Your task to perform on an android device: toggle data saver in the chrome app Image 0: 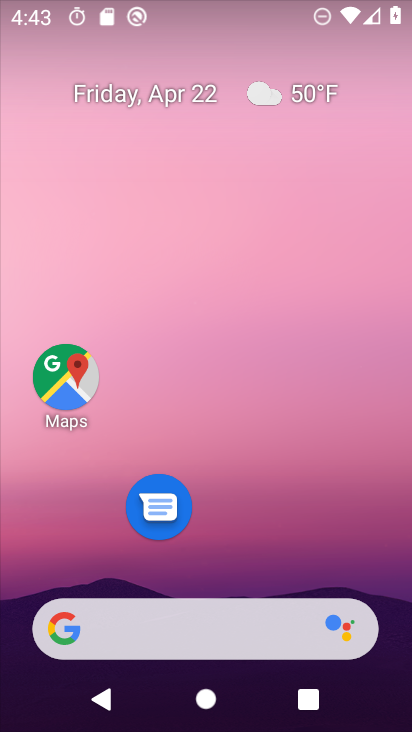
Step 0: drag from (222, 442) to (314, 34)
Your task to perform on an android device: toggle data saver in the chrome app Image 1: 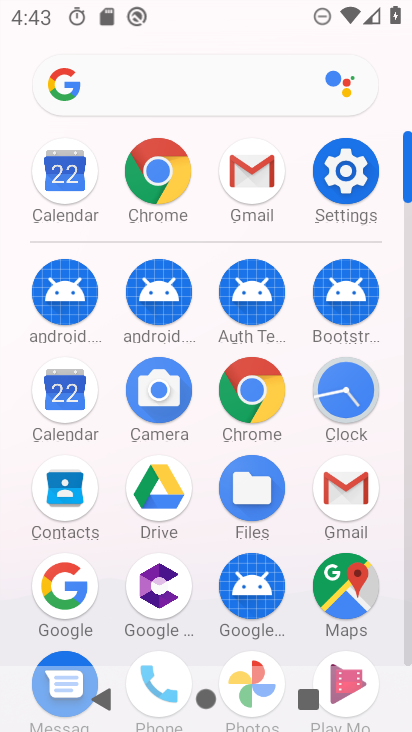
Step 1: click (158, 178)
Your task to perform on an android device: toggle data saver in the chrome app Image 2: 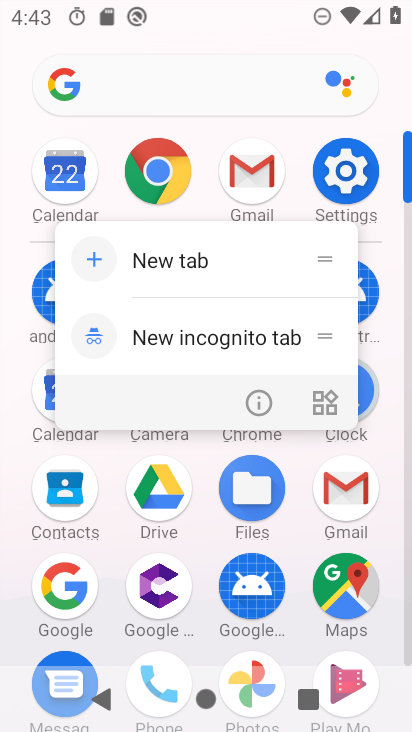
Step 2: click (158, 173)
Your task to perform on an android device: toggle data saver in the chrome app Image 3: 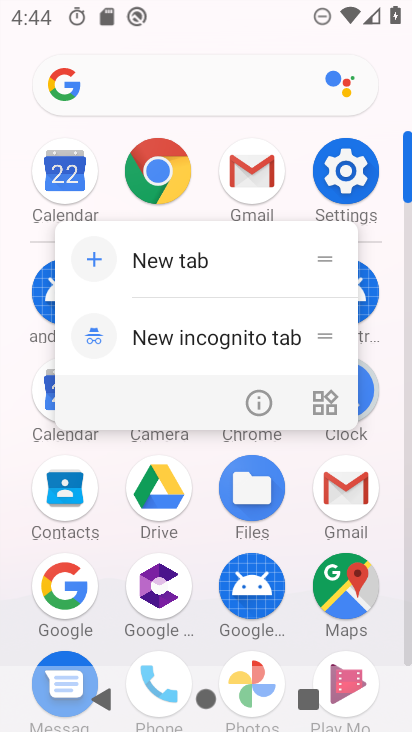
Step 3: click (163, 172)
Your task to perform on an android device: toggle data saver in the chrome app Image 4: 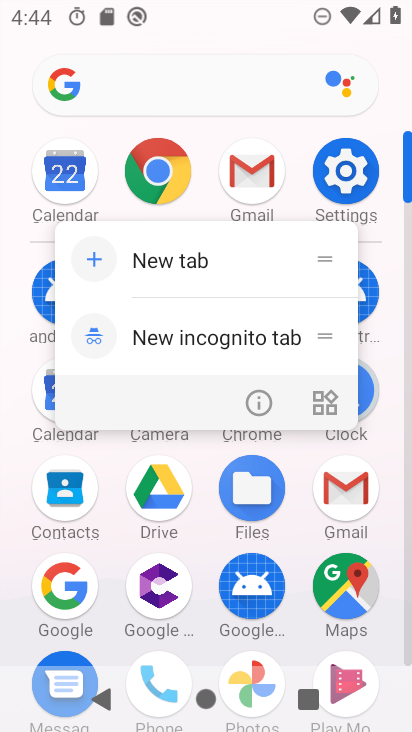
Step 4: click (150, 174)
Your task to perform on an android device: toggle data saver in the chrome app Image 5: 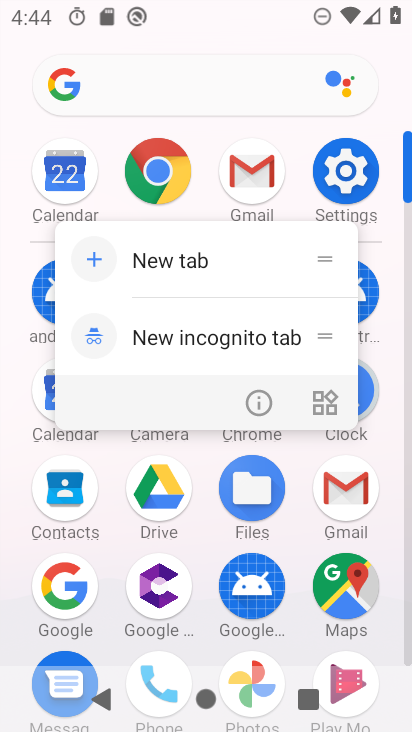
Step 5: click (164, 168)
Your task to perform on an android device: toggle data saver in the chrome app Image 6: 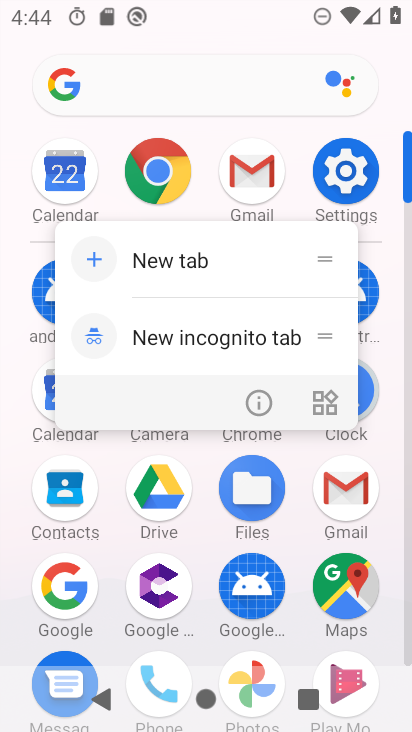
Step 6: click (171, 175)
Your task to perform on an android device: toggle data saver in the chrome app Image 7: 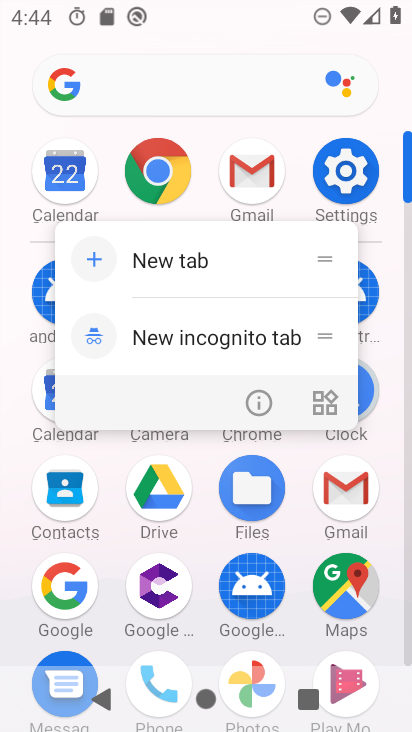
Step 7: click (134, 164)
Your task to perform on an android device: toggle data saver in the chrome app Image 8: 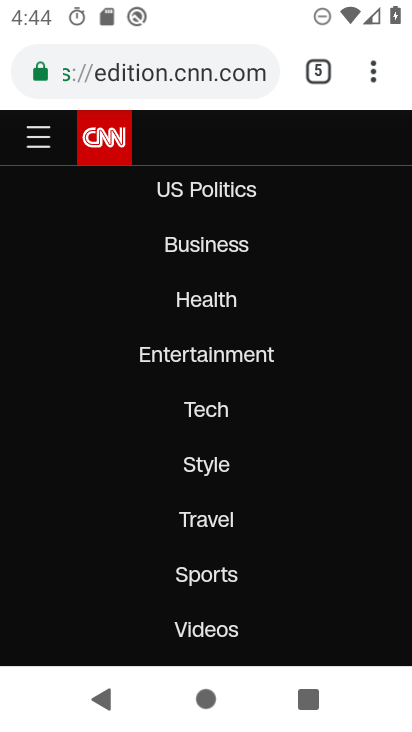
Step 8: drag from (377, 70) to (141, 499)
Your task to perform on an android device: toggle data saver in the chrome app Image 9: 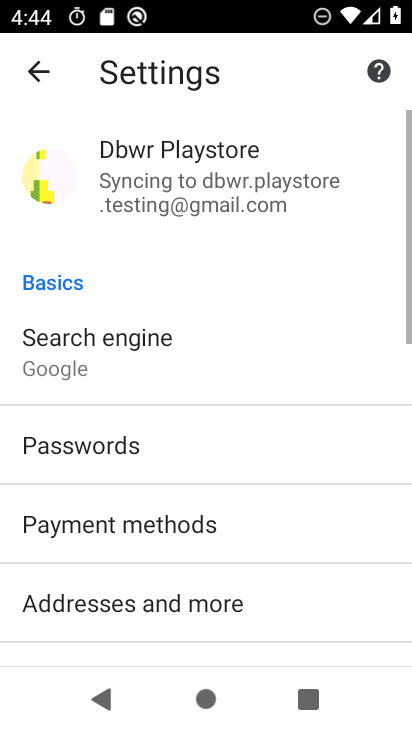
Step 9: drag from (168, 587) to (304, 72)
Your task to perform on an android device: toggle data saver in the chrome app Image 10: 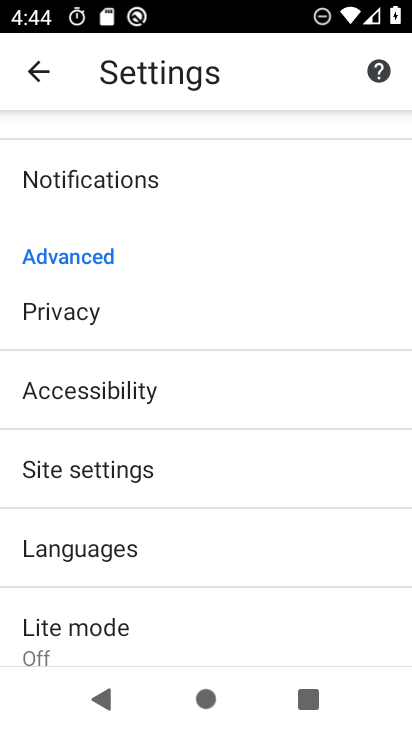
Step 10: click (78, 620)
Your task to perform on an android device: toggle data saver in the chrome app Image 11: 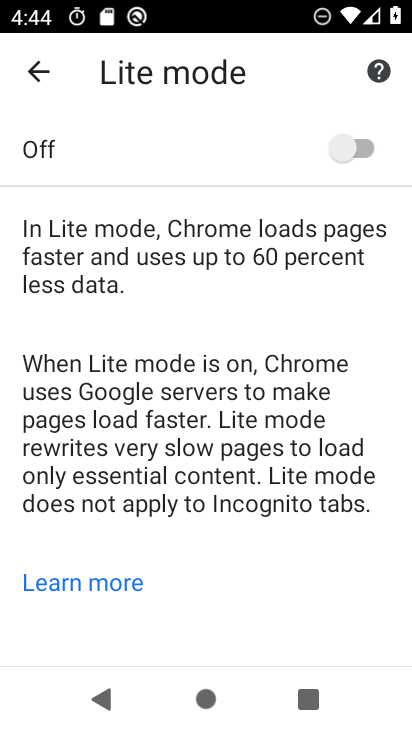
Step 11: click (344, 149)
Your task to perform on an android device: toggle data saver in the chrome app Image 12: 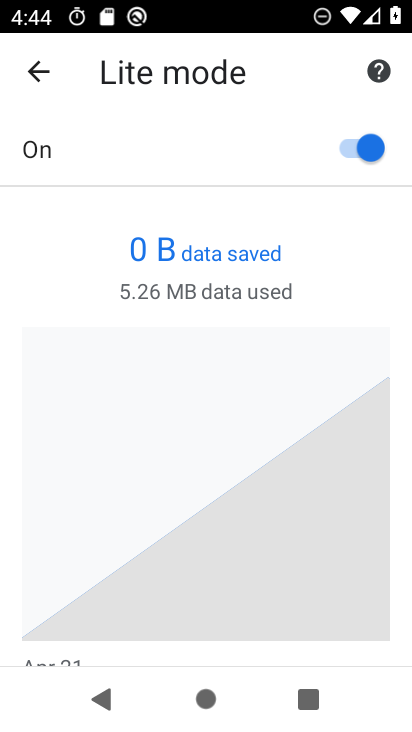
Step 12: task complete